Your task to perform on an android device: toggle data saver in the chrome app Image 0: 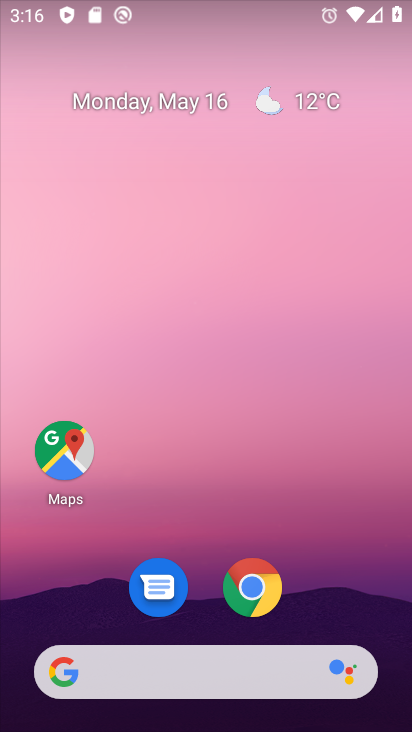
Step 0: click (257, 574)
Your task to perform on an android device: toggle data saver in the chrome app Image 1: 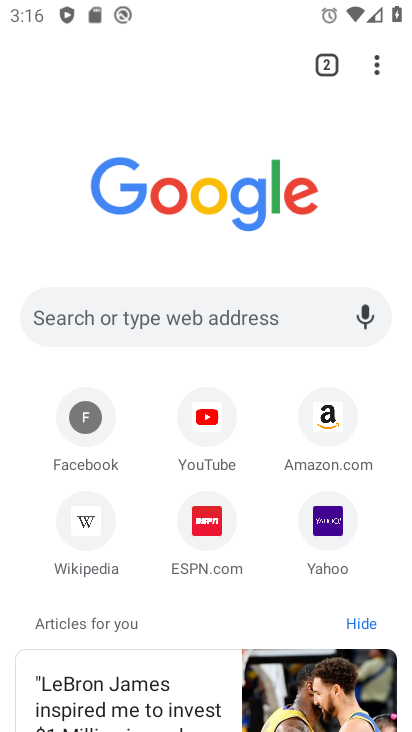
Step 1: click (374, 62)
Your task to perform on an android device: toggle data saver in the chrome app Image 2: 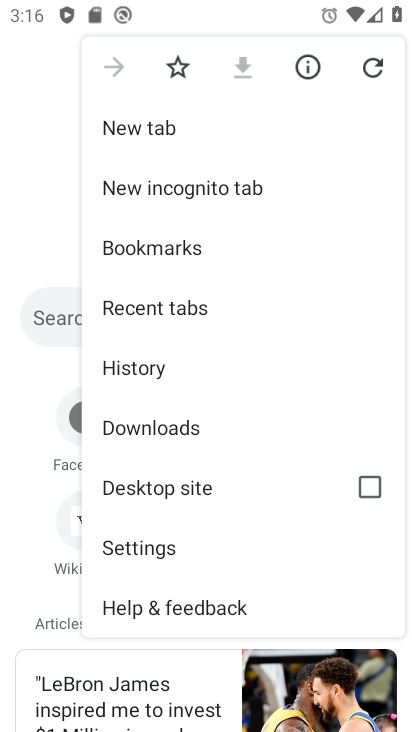
Step 2: click (141, 545)
Your task to perform on an android device: toggle data saver in the chrome app Image 3: 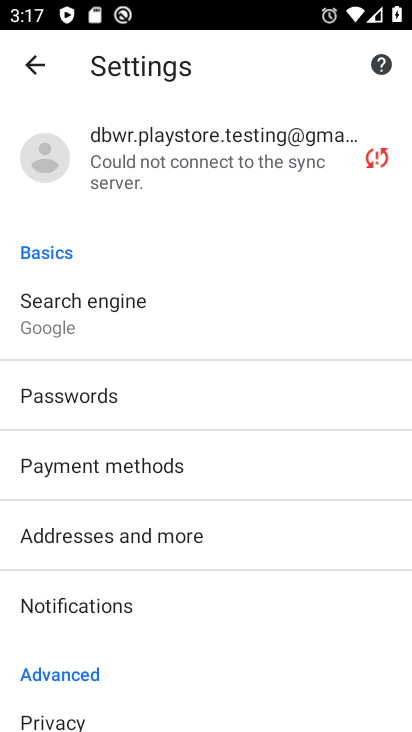
Step 3: drag from (204, 661) to (235, 364)
Your task to perform on an android device: toggle data saver in the chrome app Image 4: 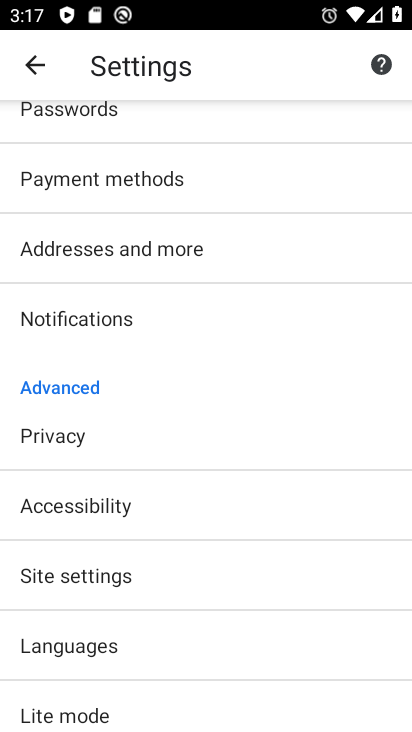
Step 4: click (94, 710)
Your task to perform on an android device: toggle data saver in the chrome app Image 5: 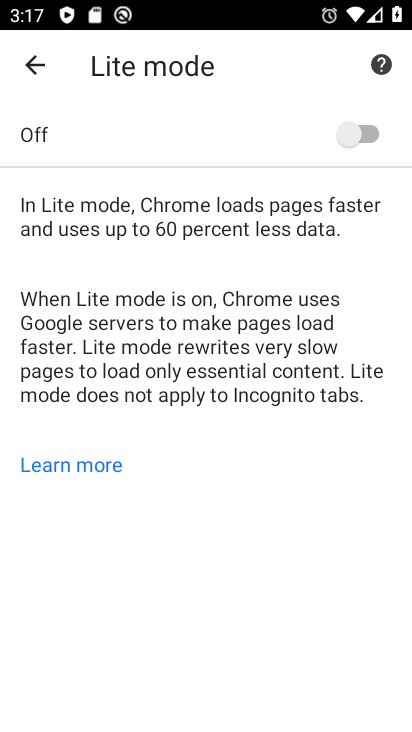
Step 5: click (375, 121)
Your task to perform on an android device: toggle data saver in the chrome app Image 6: 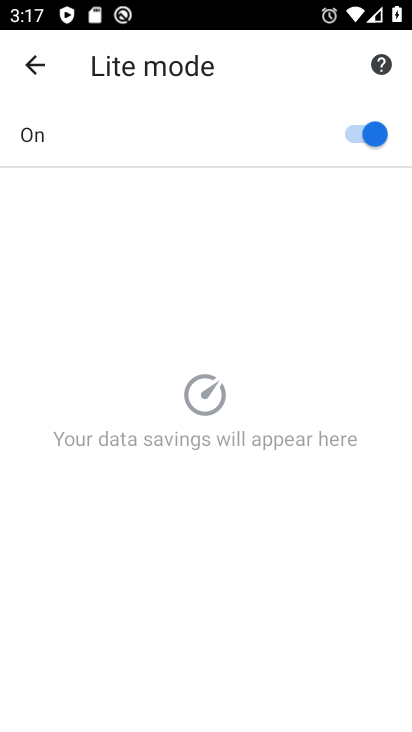
Step 6: task complete